Your task to perform on an android device: Open Google Chrome Image 0: 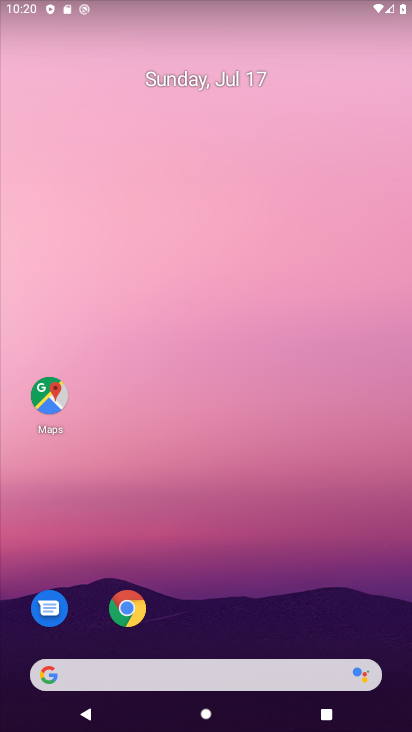
Step 0: click (118, 605)
Your task to perform on an android device: Open Google Chrome Image 1: 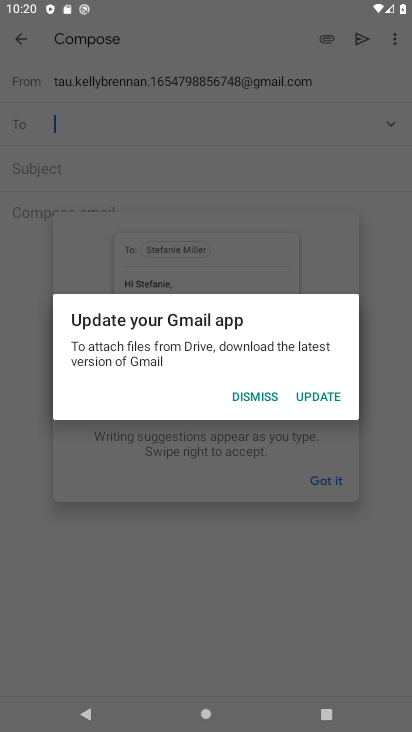
Step 1: click (332, 396)
Your task to perform on an android device: Open Google Chrome Image 2: 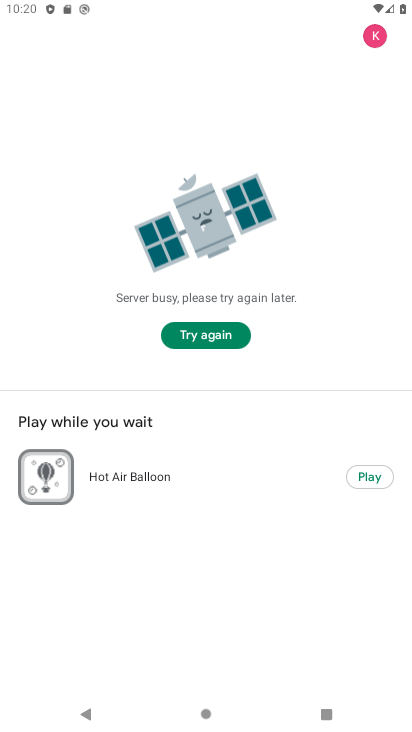
Step 2: task complete